Your task to perform on an android device: turn off airplane mode Image 0: 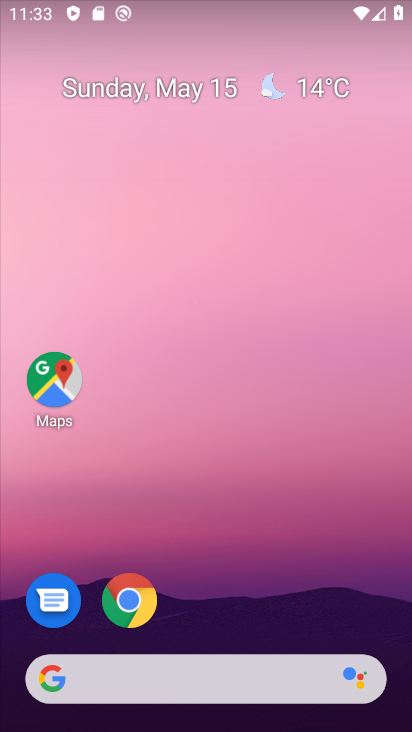
Step 0: drag from (398, 644) to (339, 76)
Your task to perform on an android device: turn off airplane mode Image 1: 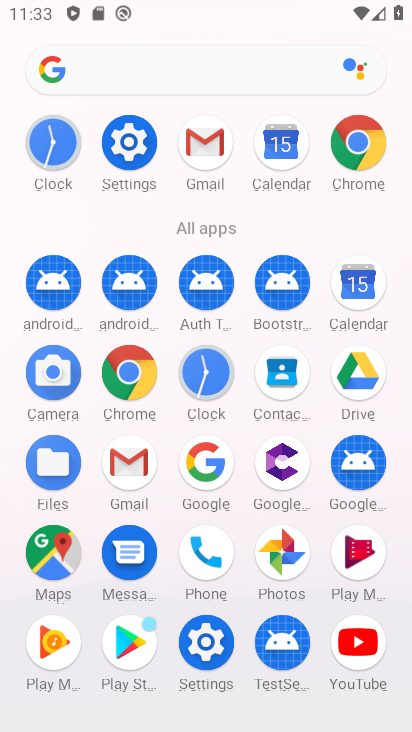
Step 1: click (204, 638)
Your task to perform on an android device: turn off airplane mode Image 2: 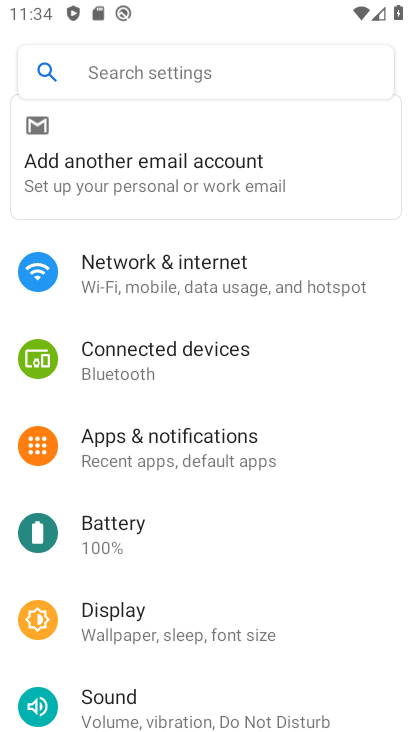
Step 2: click (148, 269)
Your task to perform on an android device: turn off airplane mode Image 3: 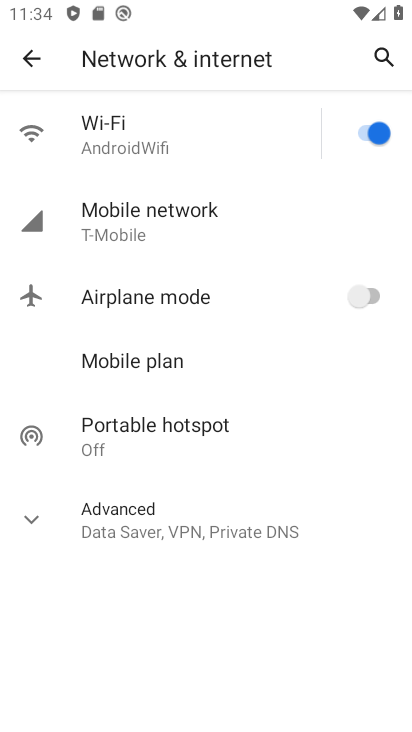
Step 3: task complete